Your task to perform on an android device: Open Google Chrome and click the shortcut for Amazon.com Image 0: 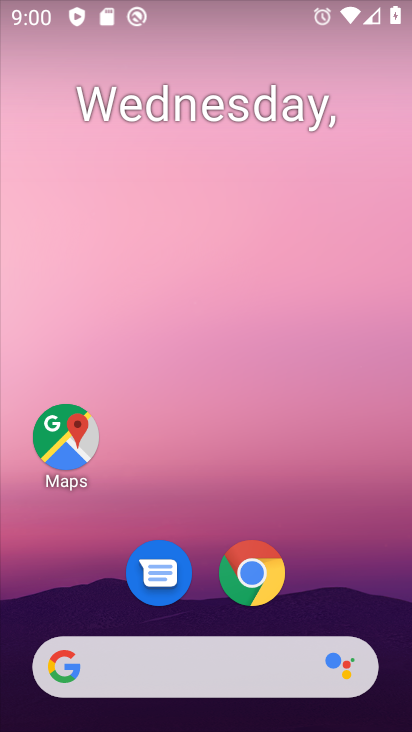
Step 0: drag from (232, 97) to (358, 65)
Your task to perform on an android device: Open Google Chrome and click the shortcut for Amazon.com Image 1: 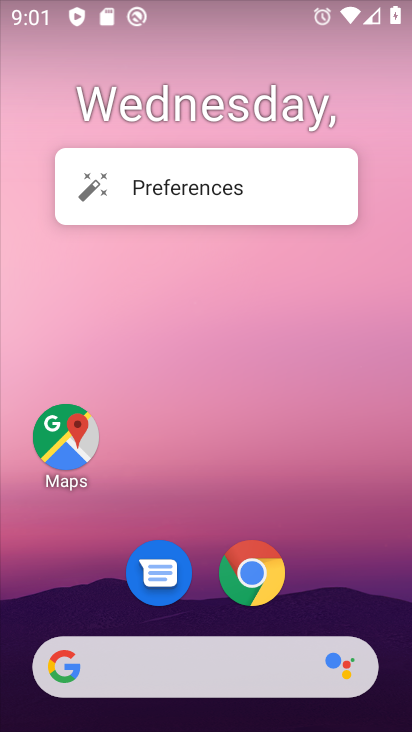
Step 1: click (263, 560)
Your task to perform on an android device: Open Google Chrome and click the shortcut for Amazon.com Image 2: 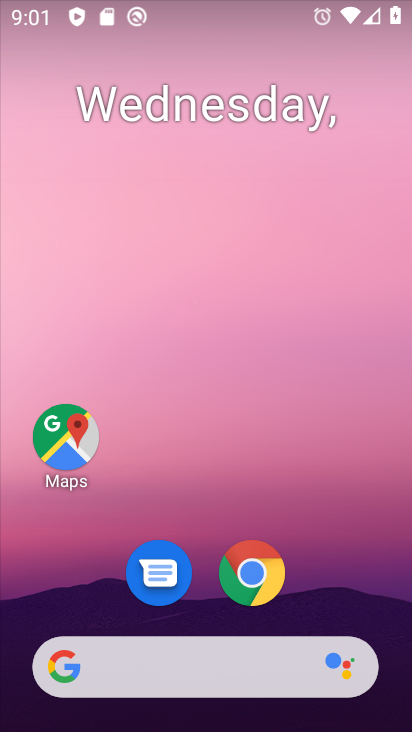
Step 2: click (267, 561)
Your task to perform on an android device: Open Google Chrome and click the shortcut for Amazon.com Image 3: 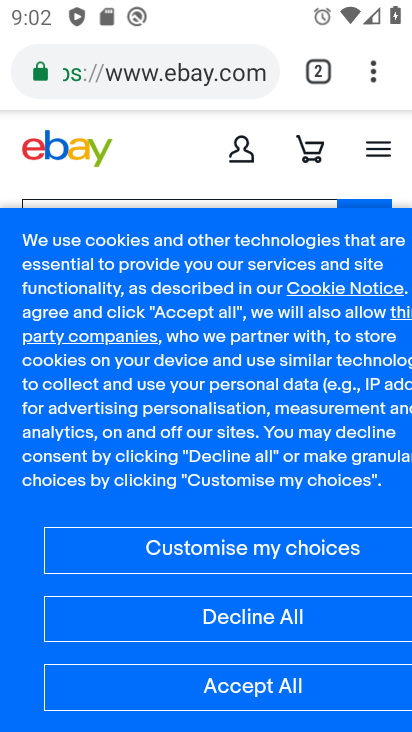
Step 3: click (250, 79)
Your task to perform on an android device: Open Google Chrome and click the shortcut for Amazon.com Image 4: 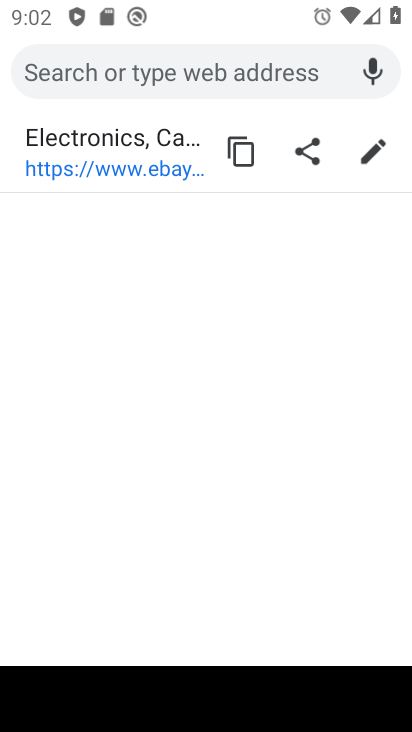
Step 4: type "amazon"
Your task to perform on an android device: Open Google Chrome and click the shortcut for Amazon.com Image 5: 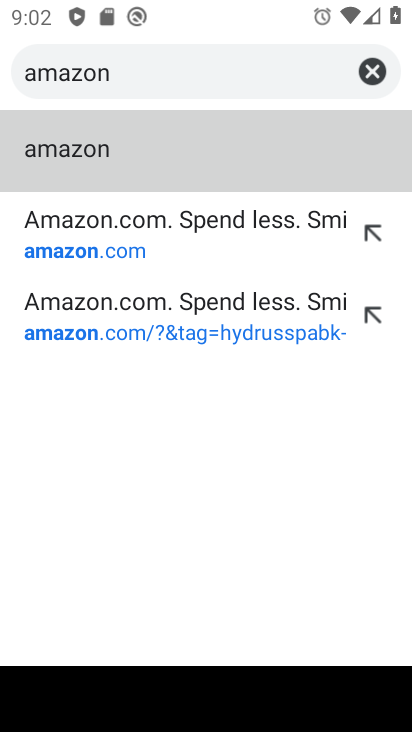
Step 5: click (205, 246)
Your task to perform on an android device: Open Google Chrome and click the shortcut for Amazon.com Image 6: 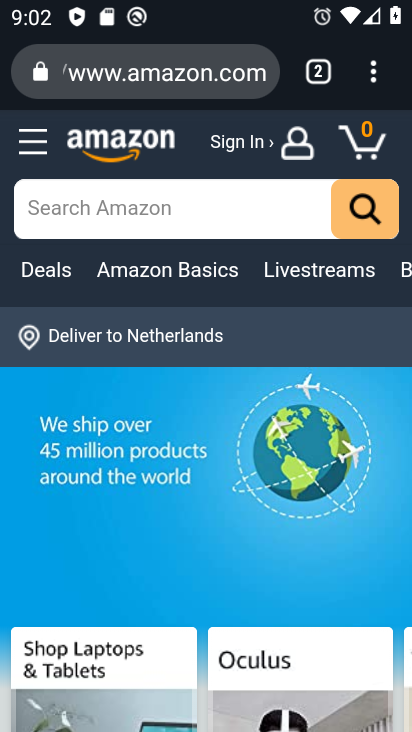
Step 6: task complete